Your task to perform on an android device: Do I have any events tomorrow? Image 0: 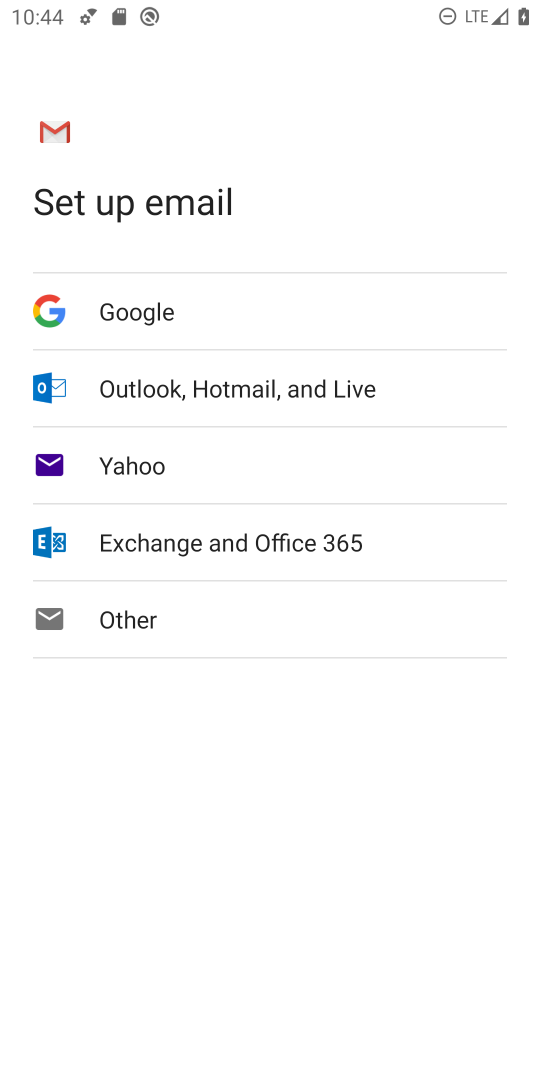
Step 0: press home button
Your task to perform on an android device: Do I have any events tomorrow? Image 1: 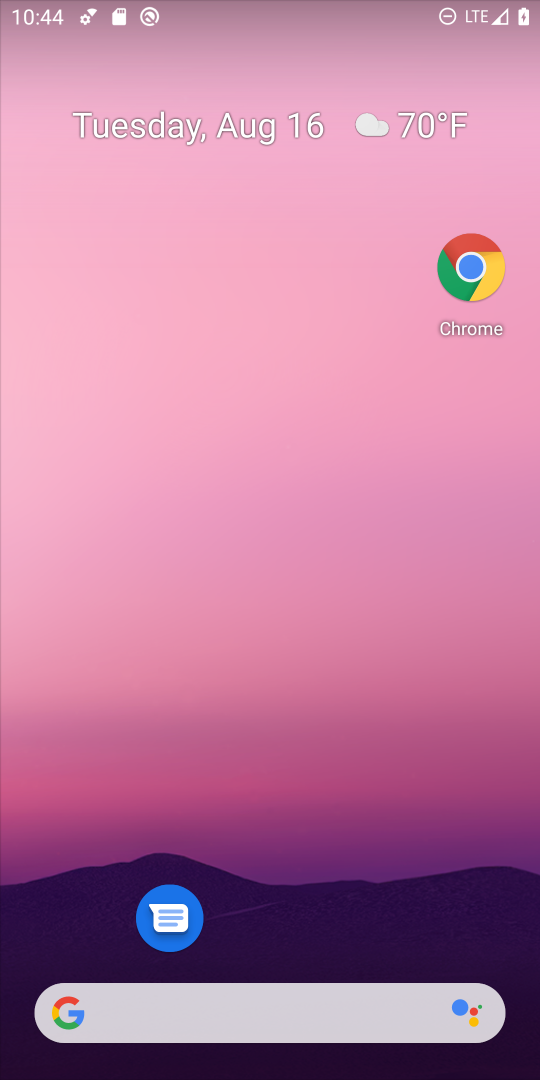
Step 1: drag from (328, 959) to (266, 179)
Your task to perform on an android device: Do I have any events tomorrow? Image 2: 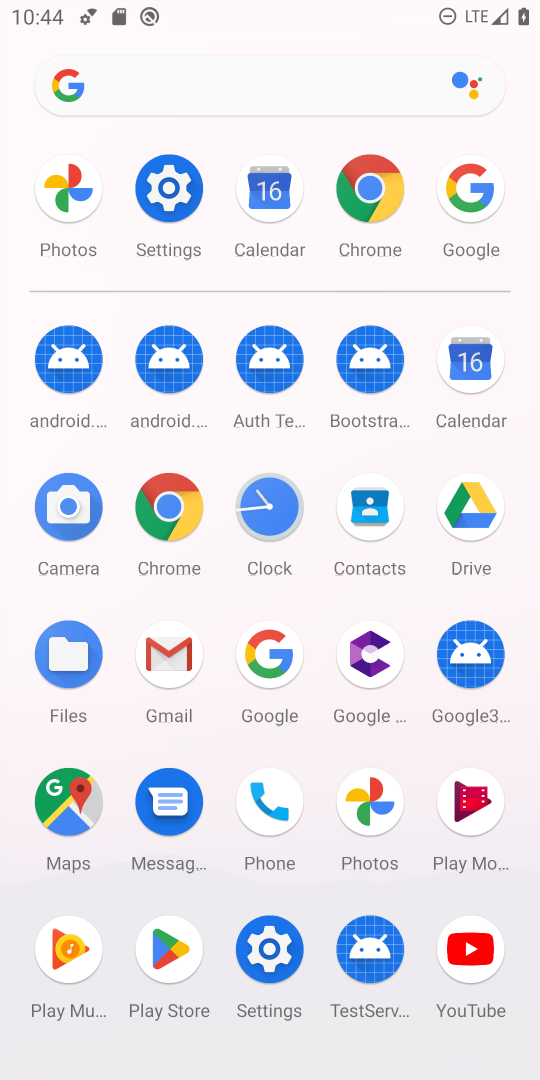
Step 2: click (468, 361)
Your task to perform on an android device: Do I have any events tomorrow? Image 3: 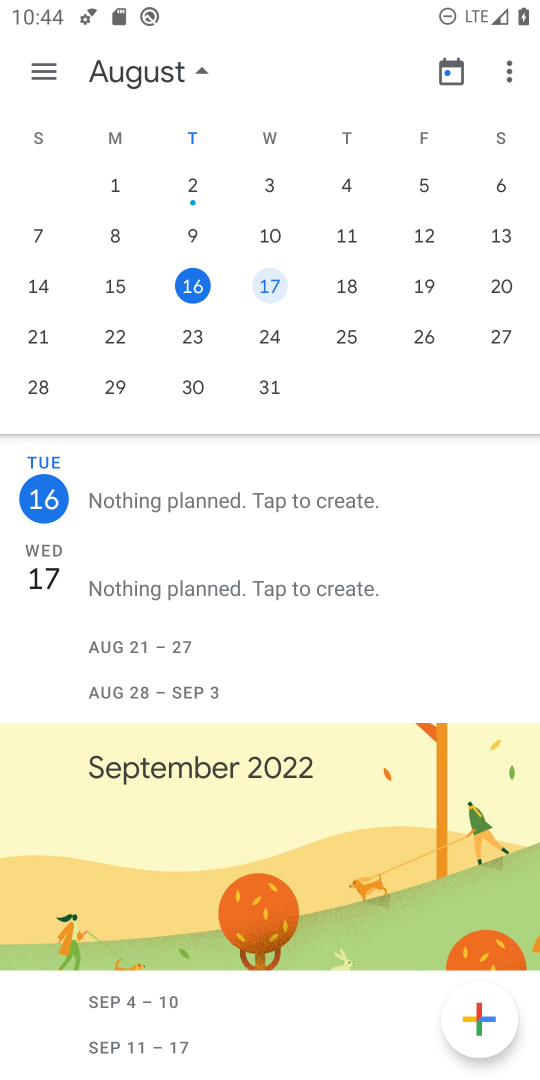
Step 3: click (267, 289)
Your task to perform on an android device: Do I have any events tomorrow? Image 4: 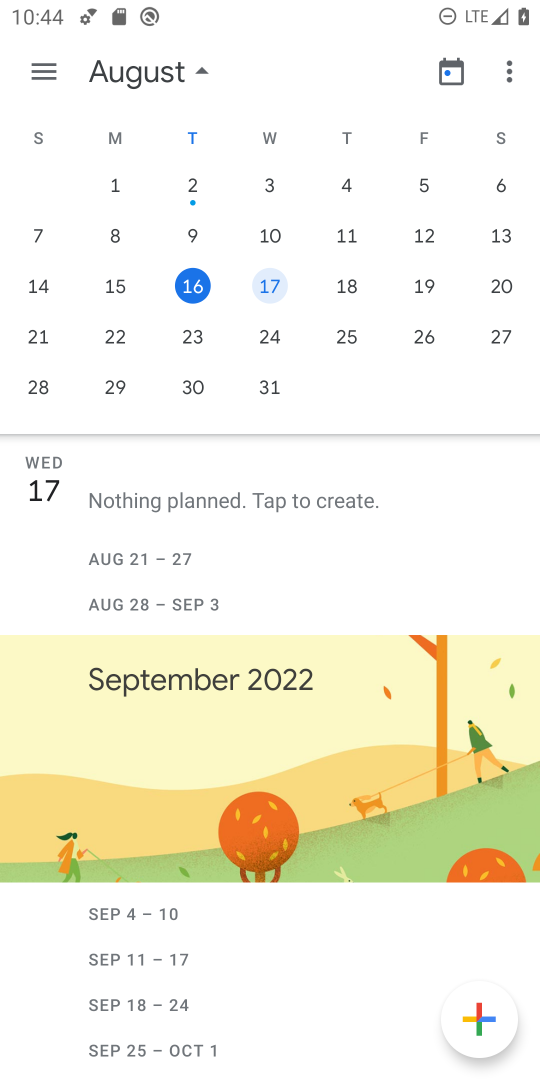
Step 4: task complete